Your task to perform on an android device: find photos in the google photos app Image 0: 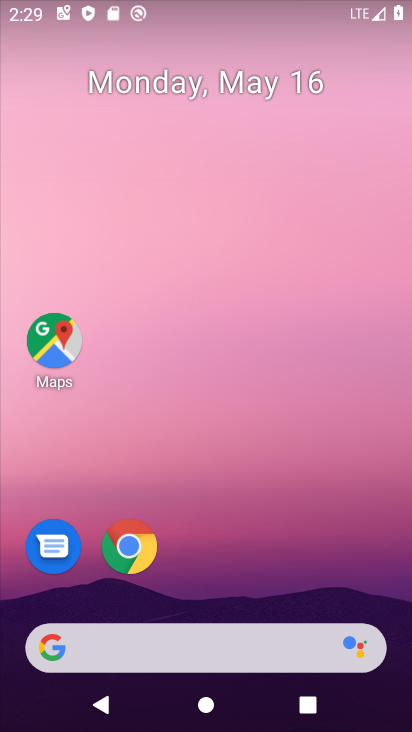
Step 0: drag from (268, 670) to (303, 168)
Your task to perform on an android device: find photos in the google photos app Image 1: 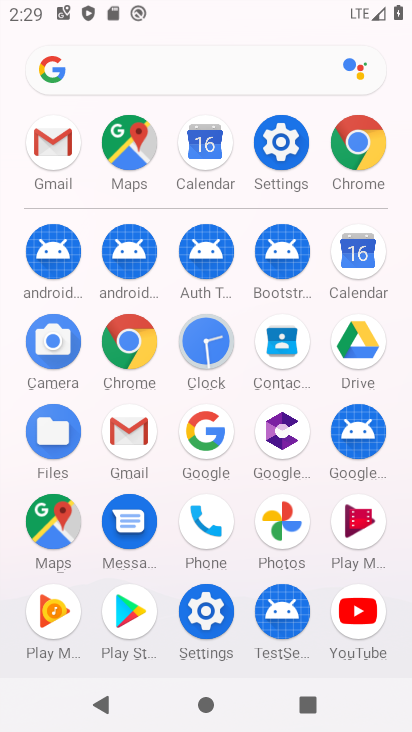
Step 1: click (276, 506)
Your task to perform on an android device: find photos in the google photos app Image 2: 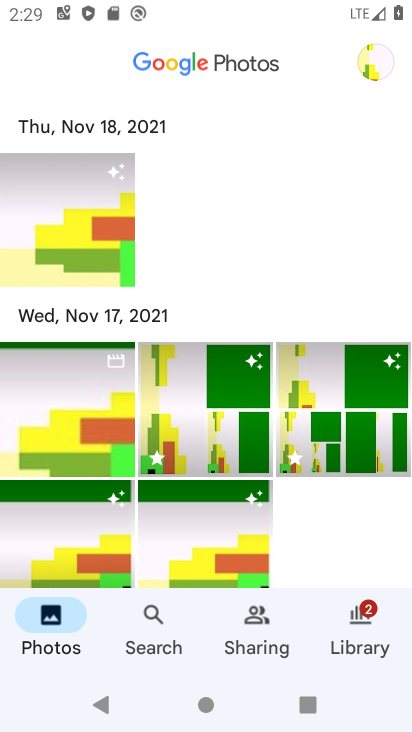
Step 2: task complete